Your task to perform on an android device: choose inbox layout in the gmail app Image 0: 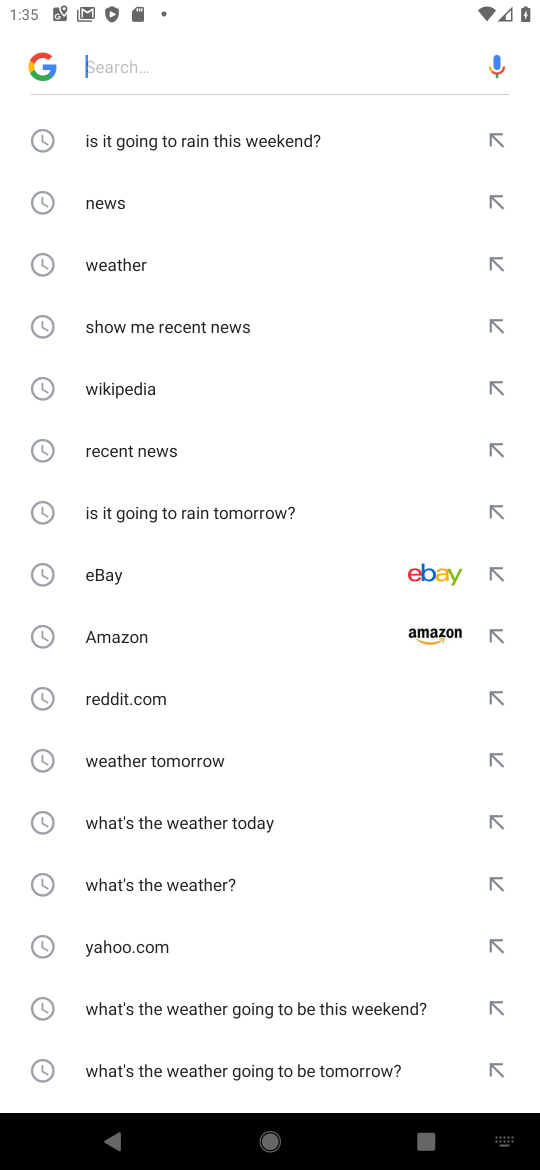
Step 0: drag from (283, 1075) to (318, 353)
Your task to perform on an android device: choose inbox layout in the gmail app Image 1: 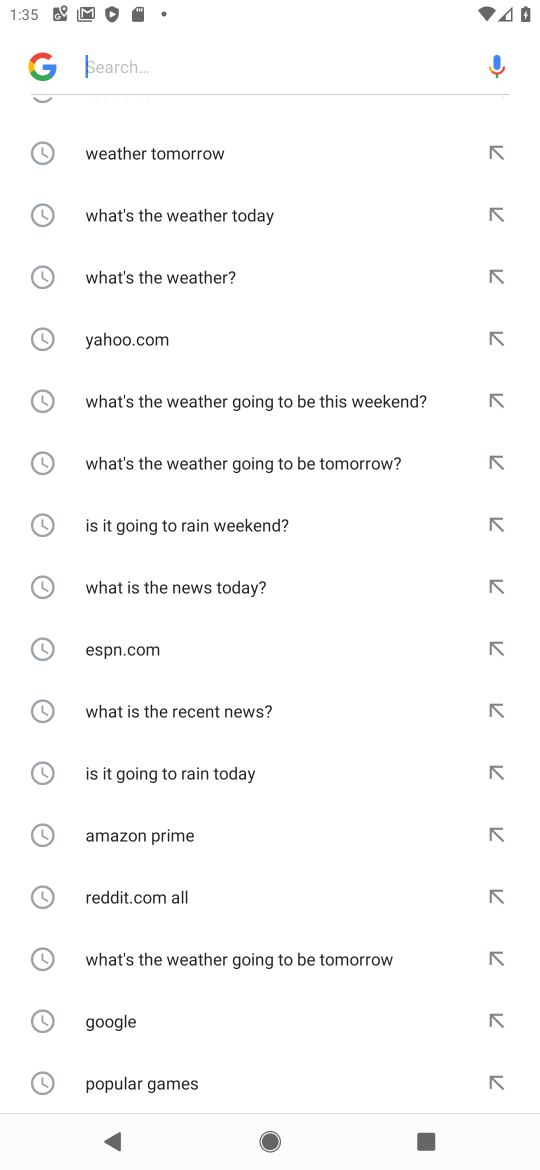
Step 1: press home button
Your task to perform on an android device: choose inbox layout in the gmail app Image 2: 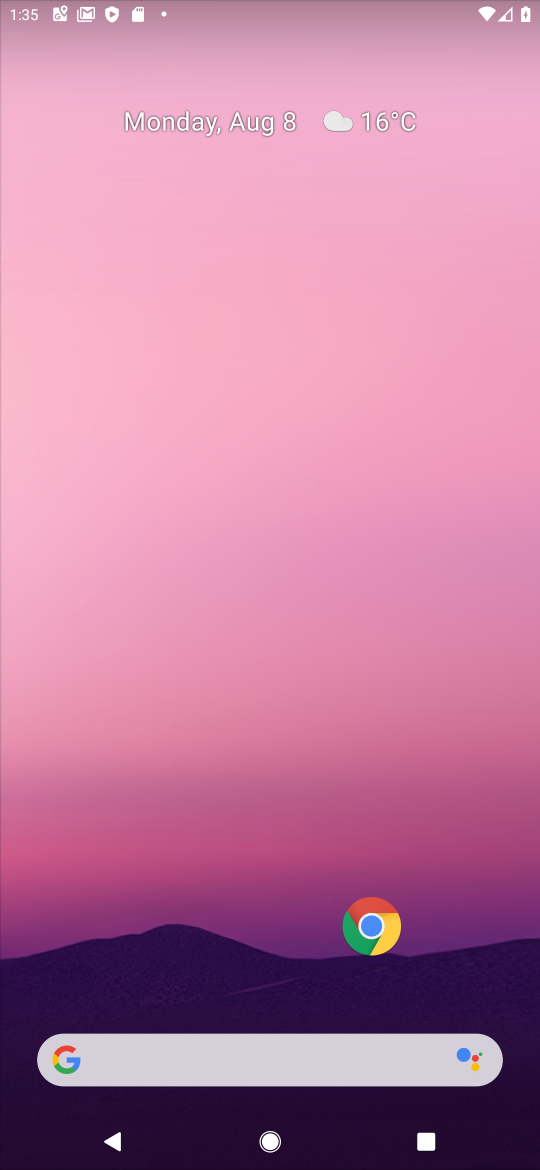
Step 2: press home button
Your task to perform on an android device: choose inbox layout in the gmail app Image 3: 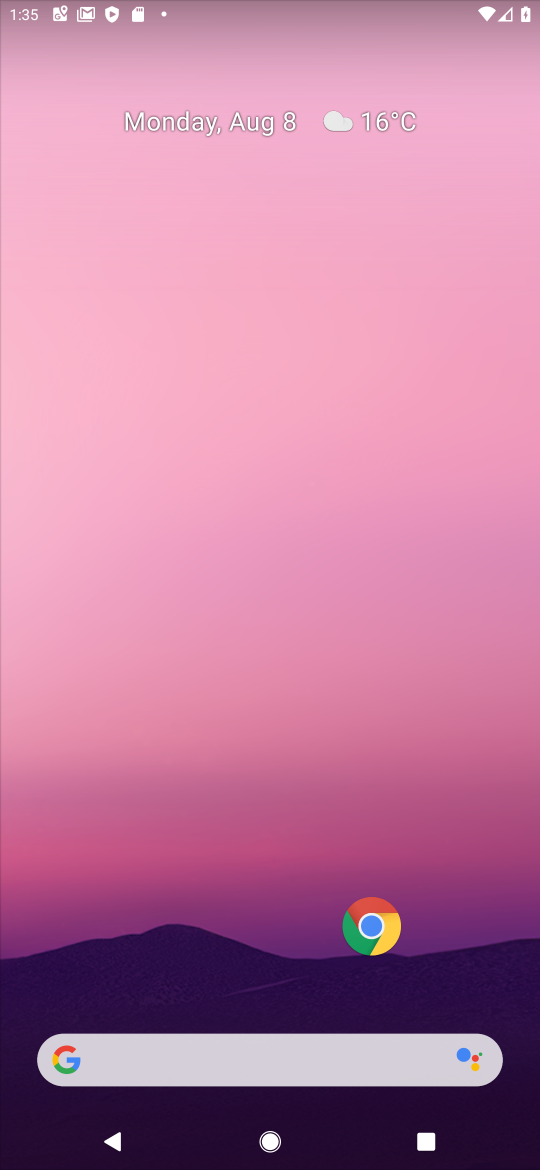
Step 3: drag from (228, 969) to (261, 139)
Your task to perform on an android device: choose inbox layout in the gmail app Image 4: 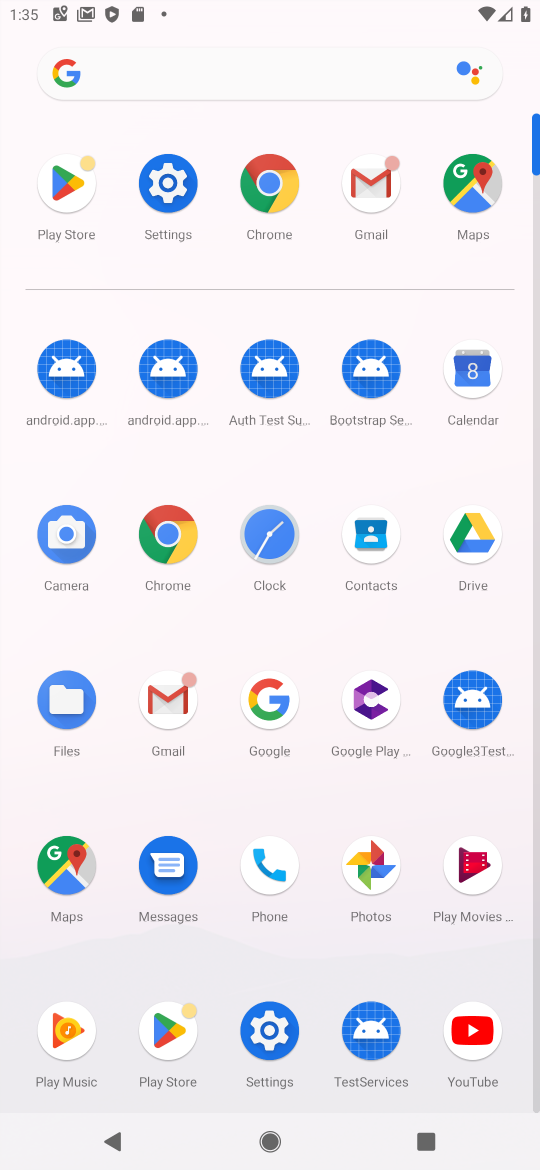
Step 4: click (178, 184)
Your task to perform on an android device: choose inbox layout in the gmail app Image 5: 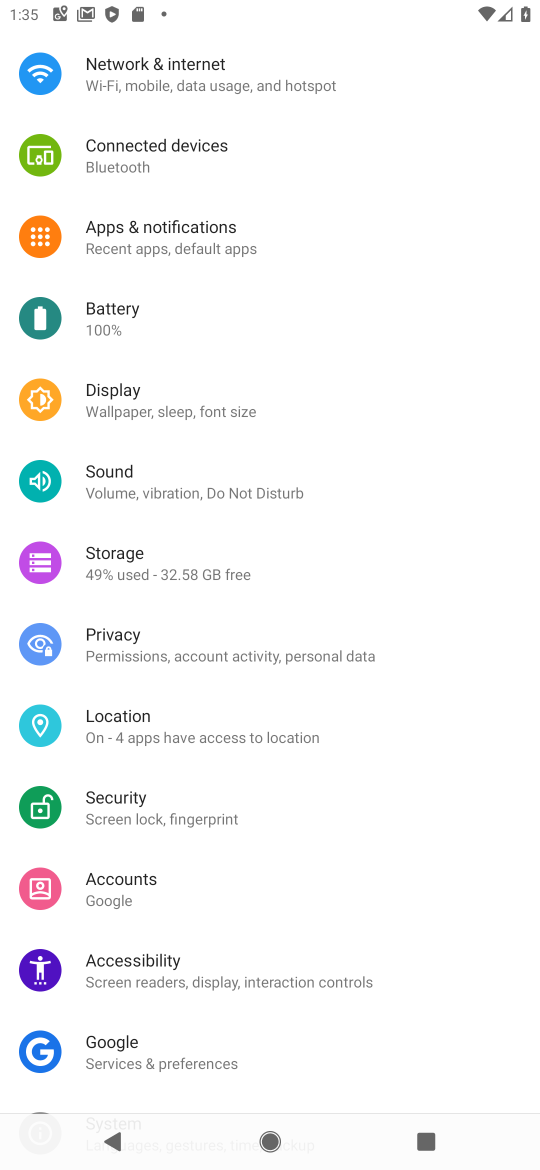
Step 5: press home button
Your task to perform on an android device: choose inbox layout in the gmail app Image 6: 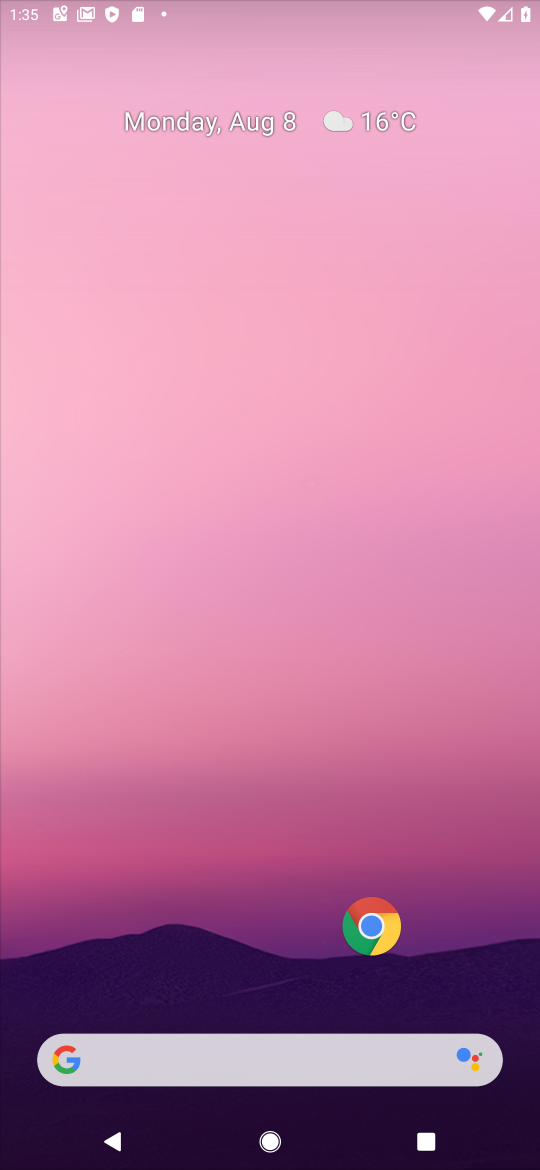
Step 6: drag from (279, 991) to (265, 284)
Your task to perform on an android device: choose inbox layout in the gmail app Image 7: 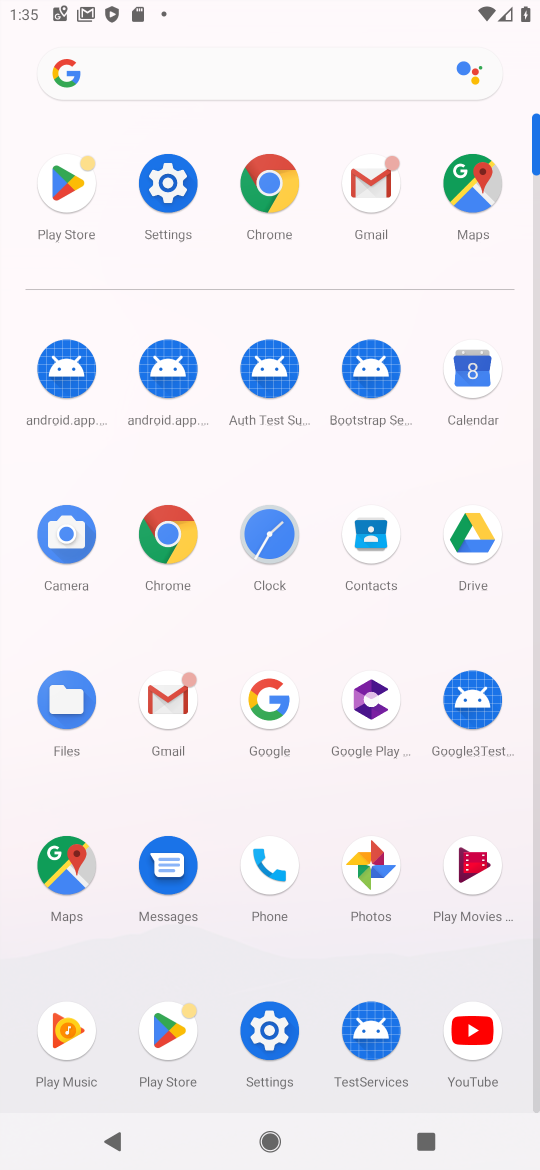
Step 7: click (172, 687)
Your task to perform on an android device: choose inbox layout in the gmail app Image 8: 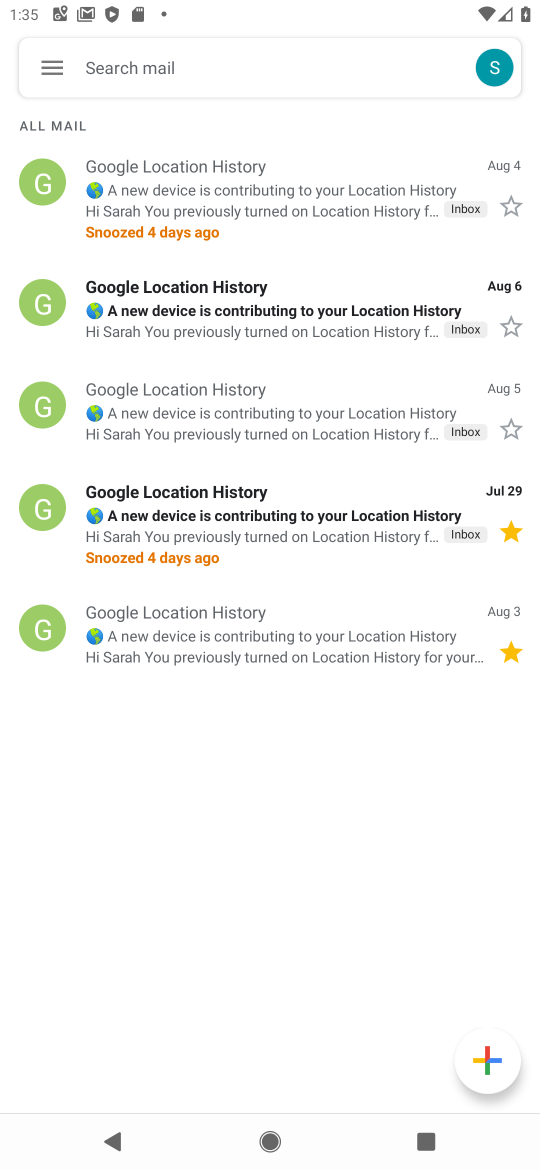
Step 8: click (56, 76)
Your task to perform on an android device: choose inbox layout in the gmail app Image 9: 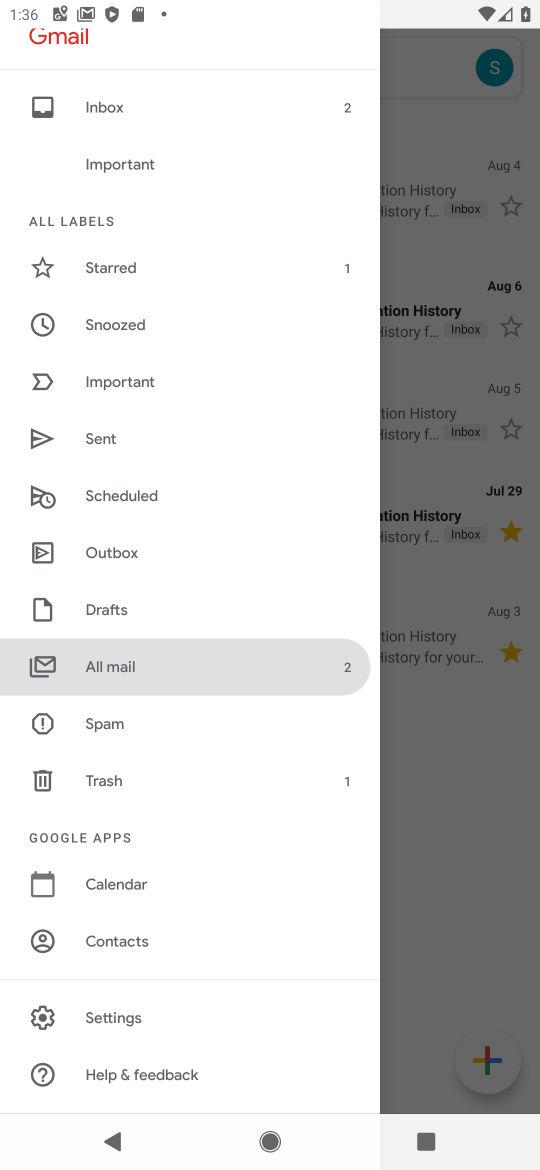
Step 9: click (123, 1018)
Your task to perform on an android device: choose inbox layout in the gmail app Image 10: 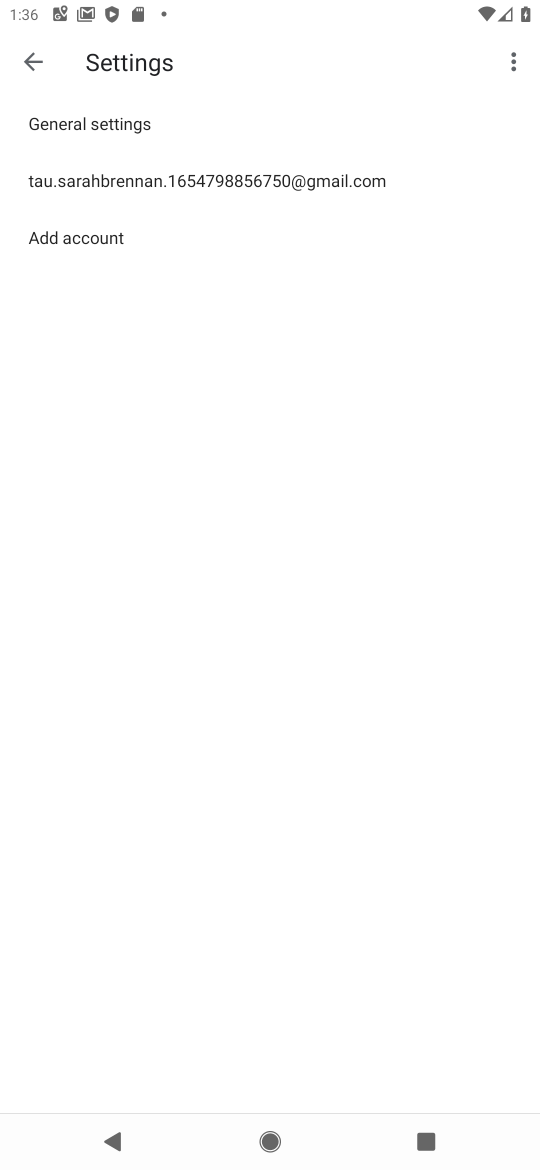
Step 10: click (153, 125)
Your task to perform on an android device: choose inbox layout in the gmail app Image 11: 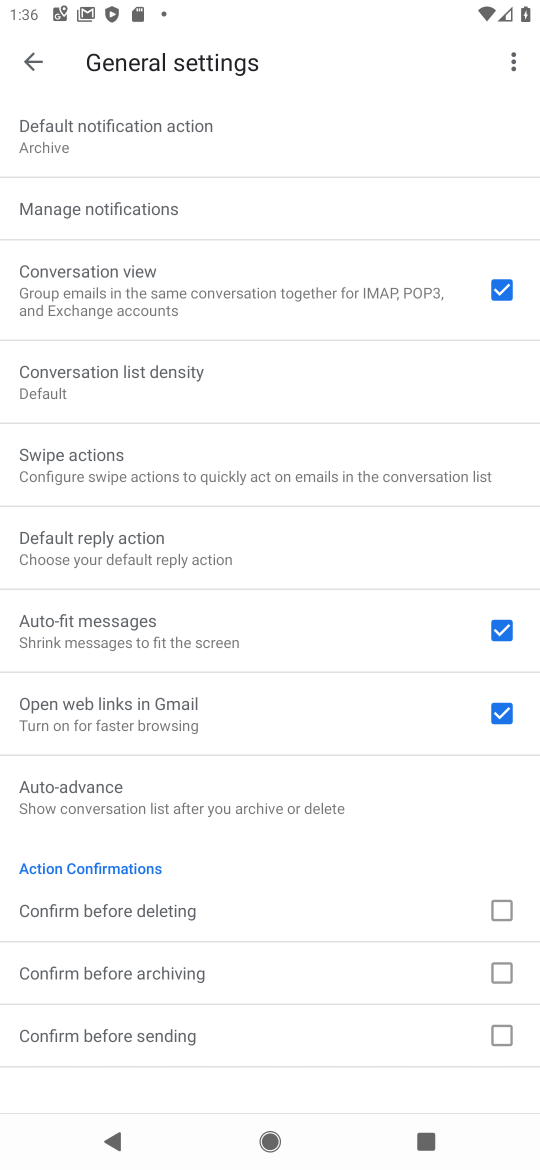
Step 11: click (40, 61)
Your task to perform on an android device: choose inbox layout in the gmail app Image 12: 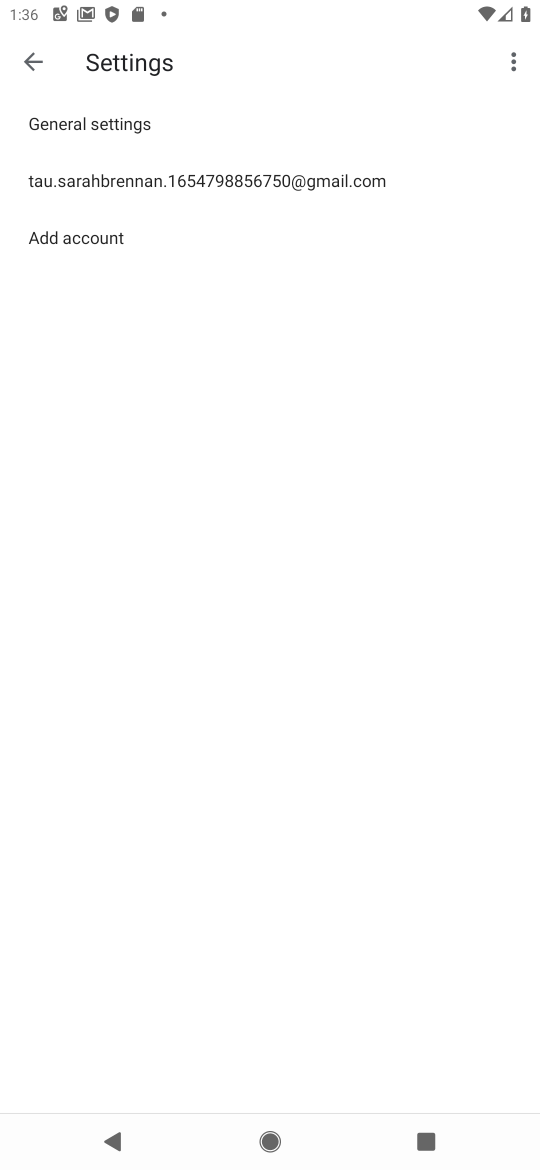
Step 12: click (109, 172)
Your task to perform on an android device: choose inbox layout in the gmail app Image 13: 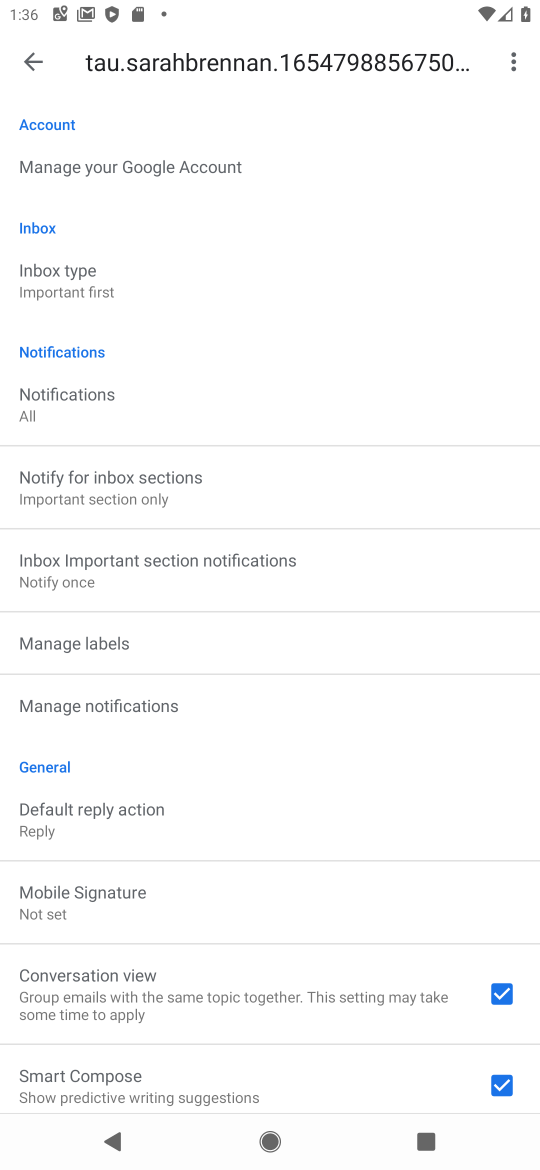
Step 13: click (94, 265)
Your task to perform on an android device: choose inbox layout in the gmail app Image 14: 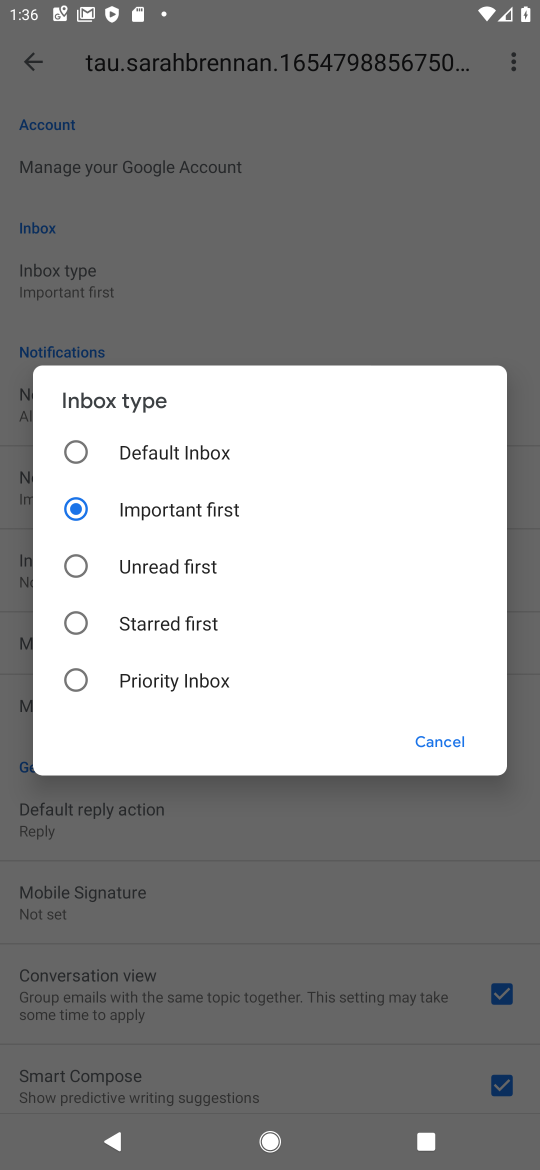
Step 14: click (144, 684)
Your task to perform on an android device: choose inbox layout in the gmail app Image 15: 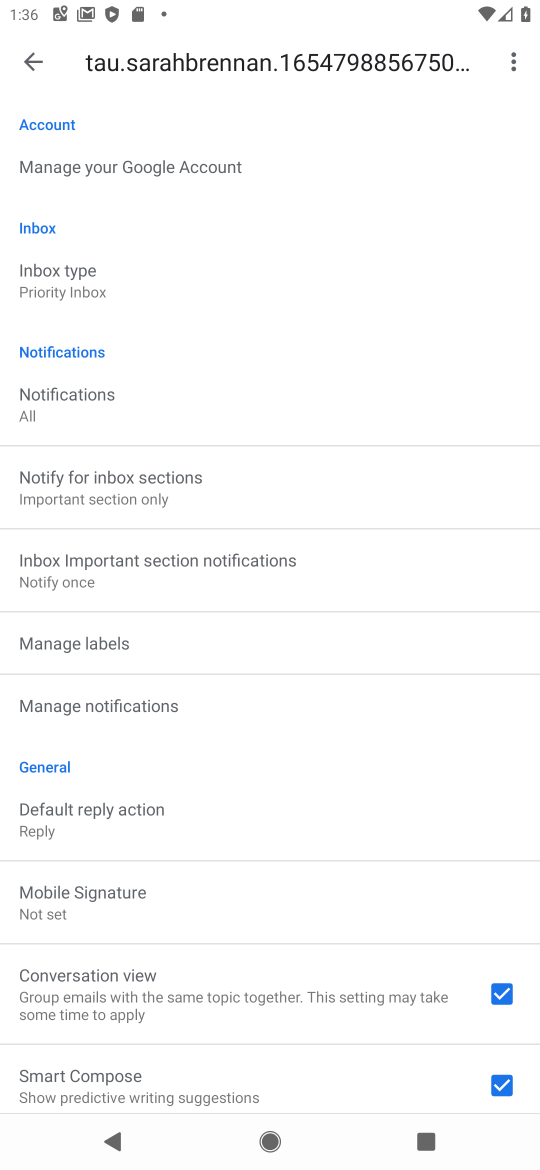
Step 15: task complete